Your task to perform on an android device: turn off picture-in-picture Image 0: 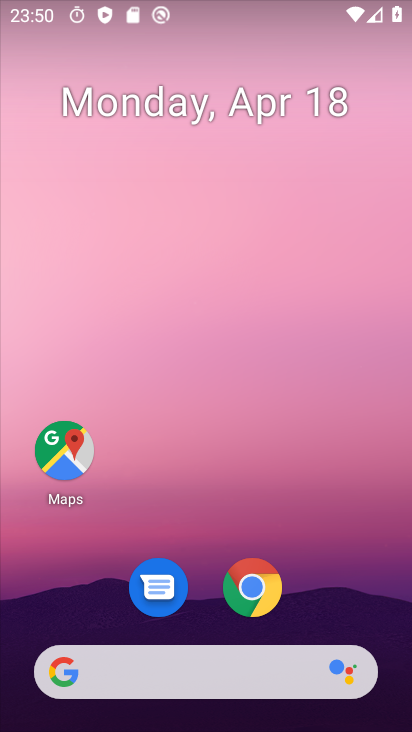
Step 0: drag from (363, 587) to (364, 114)
Your task to perform on an android device: turn off picture-in-picture Image 1: 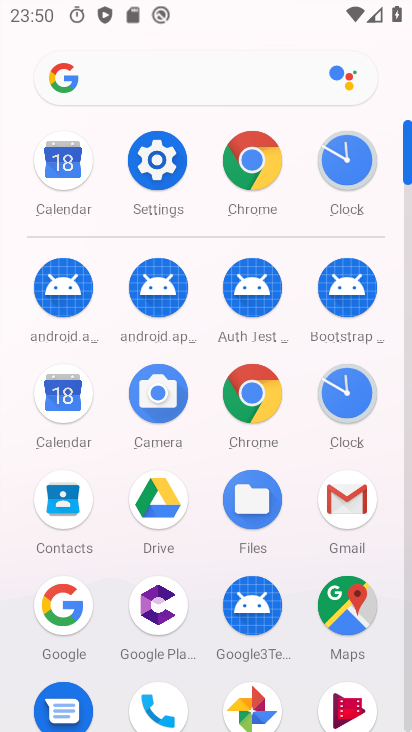
Step 1: click (168, 169)
Your task to perform on an android device: turn off picture-in-picture Image 2: 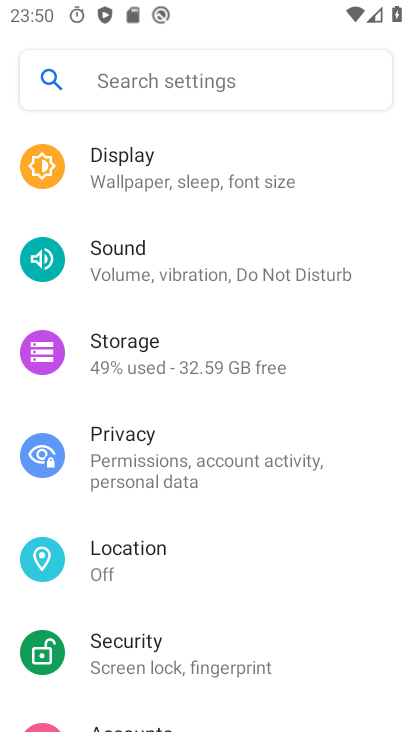
Step 2: drag from (278, 562) to (373, 210)
Your task to perform on an android device: turn off picture-in-picture Image 3: 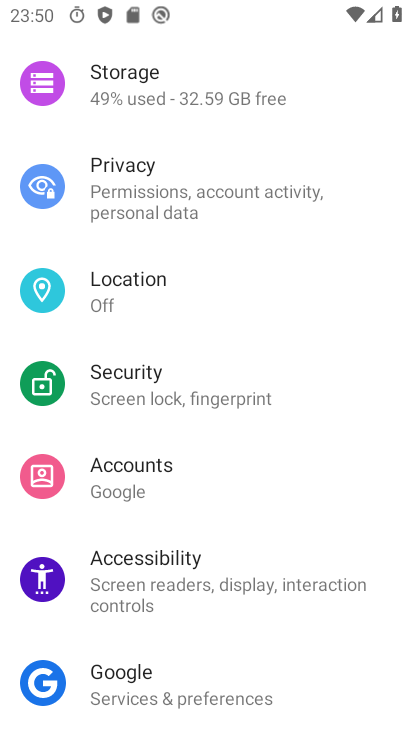
Step 3: drag from (270, 621) to (310, 275)
Your task to perform on an android device: turn off picture-in-picture Image 4: 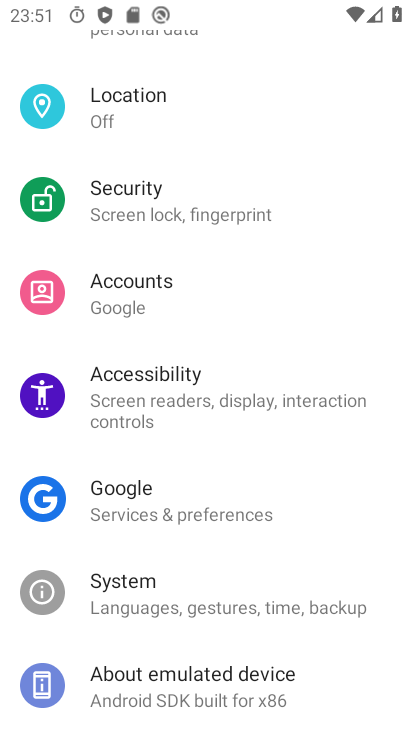
Step 4: drag from (287, 220) to (306, 509)
Your task to perform on an android device: turn off picture-in-picture Image 5: 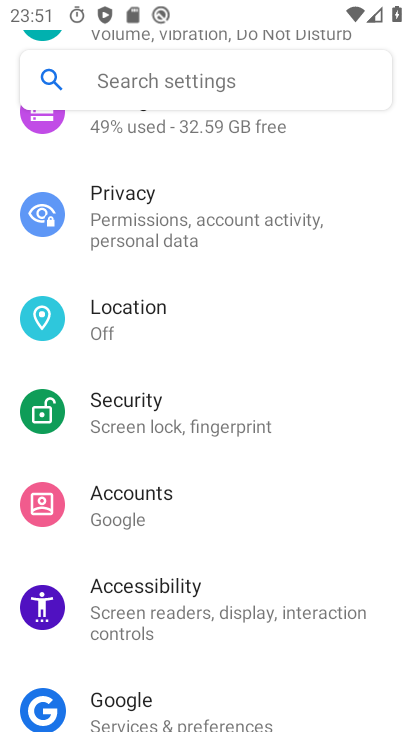
Step 5: drag from (326, 233) to (336, 512)
Your task to perform on an android device: turn off picture-in-picture Image 6: 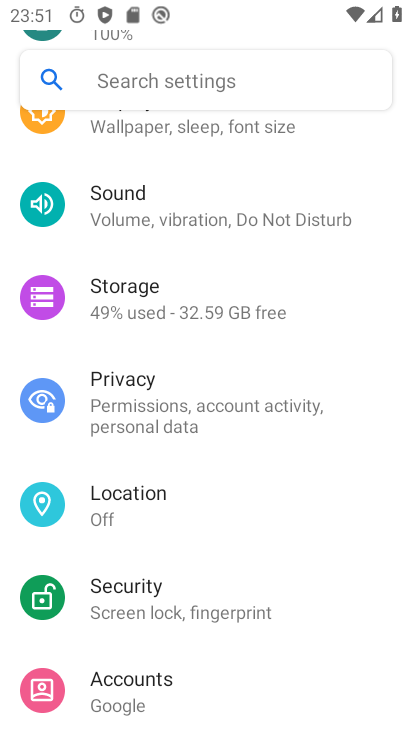
Step 6: drag from (329, 283) to (356, 513)
Your task to perform on an android device: turn off picture-in-picture Image 7: 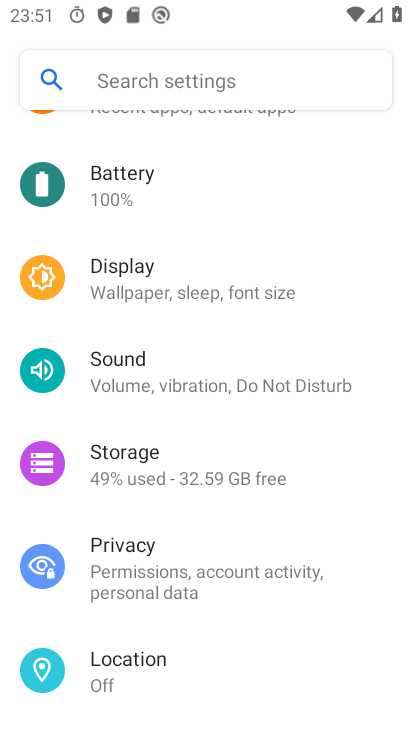
Step 7: drag from (323, 256) to (321, 488)
Your task to perform on an android device: turn off picture-in-picture Image 8: 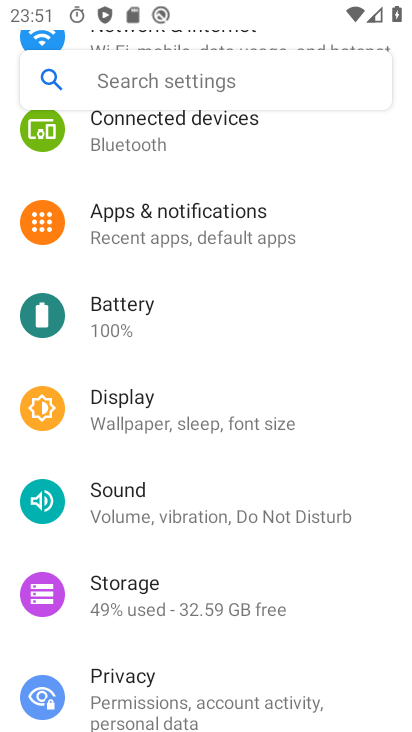
Step 8: click (247, 227)
Your task to perform on an android device: turn off picture-in-picture Image 9: 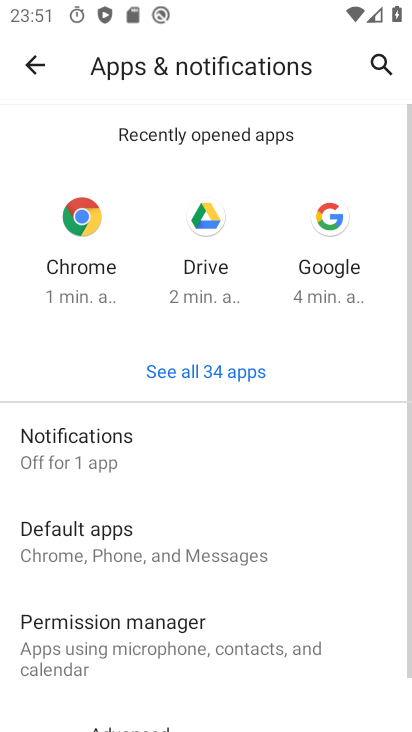
Step 9: drag from (330, 601) to (339, 214)
Your task to perform on an android device: turn off picture-in-picture Image 10: 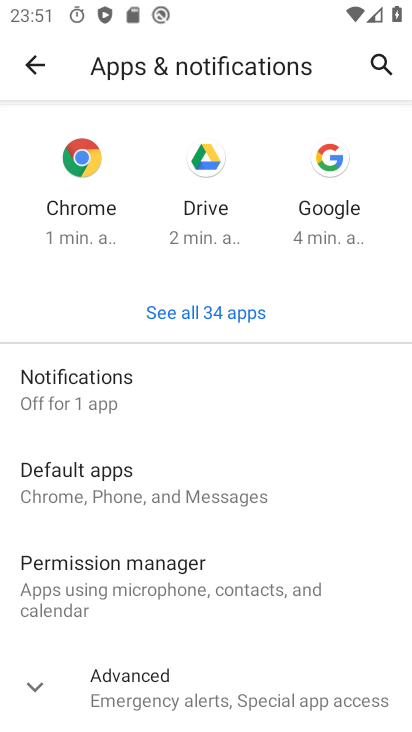
Step 10: click (231, 683)
Your task to perform on an android device: turn off picture-in-picture Image 11: 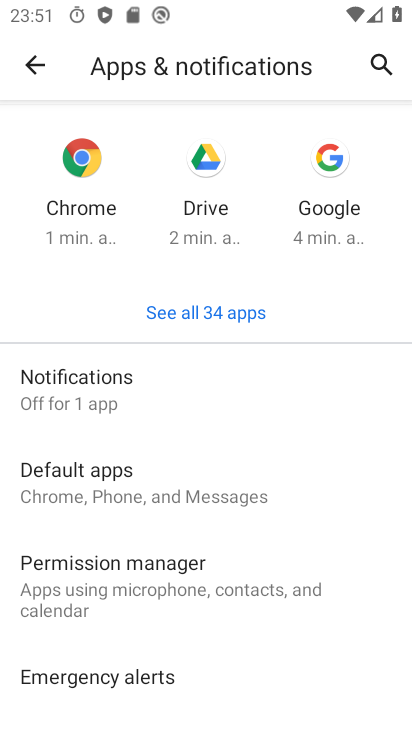
Step 11: drag from (308, 651) to (328, 433)
Your task to perform on an android device: turn off picture-in-picture Image 12: 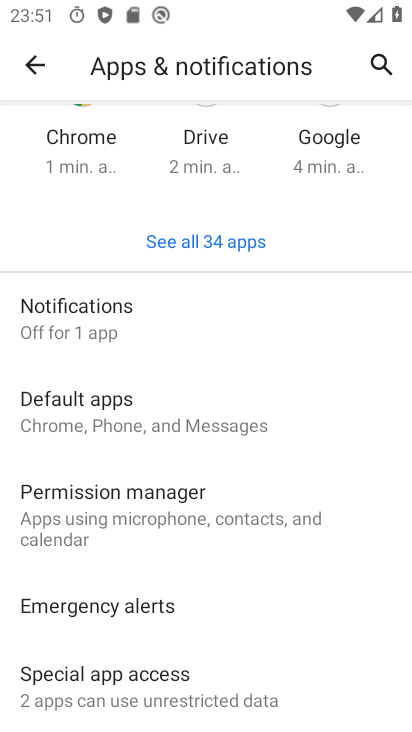
Step 12: drag from (247, 654) to (309, 406)
Your task to perform on an android device: turn off picture-in-picture Image 13: 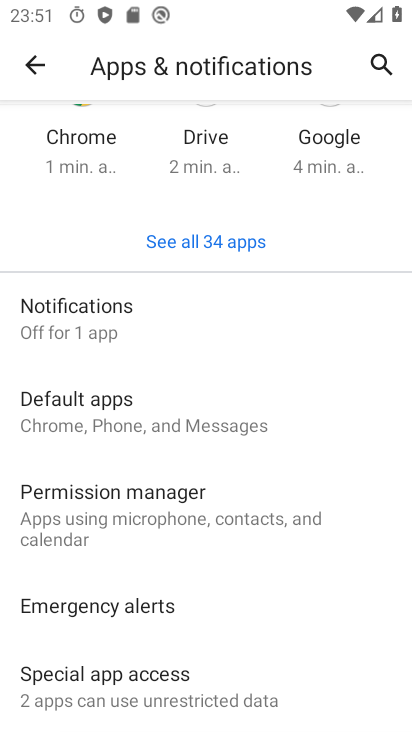
Step 13: click (204, 680)
Your task to perform on an android device: turn off picture-in-picture Image 14: 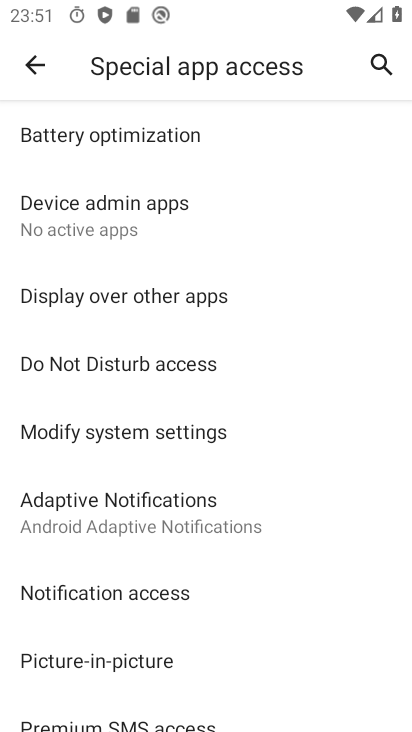
Step 14: click (162, 656)
Your task to perform on an android device: turn off picture-in-picture Image 15: 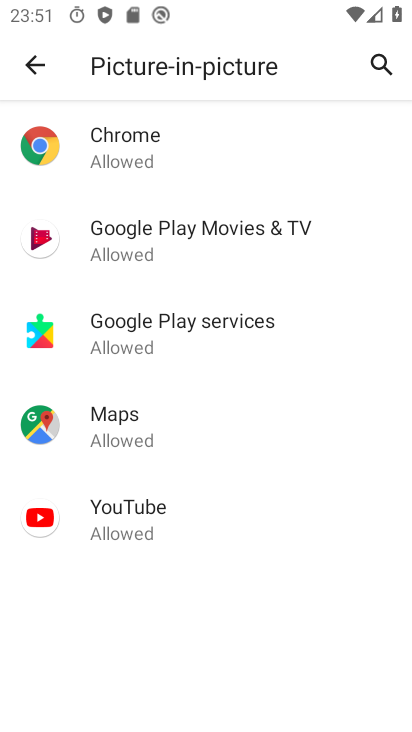
Step 15: click (190, 164)
Your task to perform on an android device: turn off picture-in-picture Image 16: 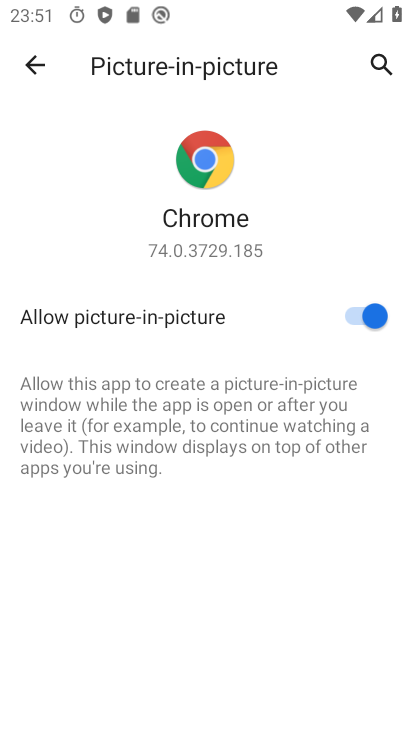
Step 16: click (351, 312)
Your task to perform on an android device: turn off picture-in-picture Image 17: 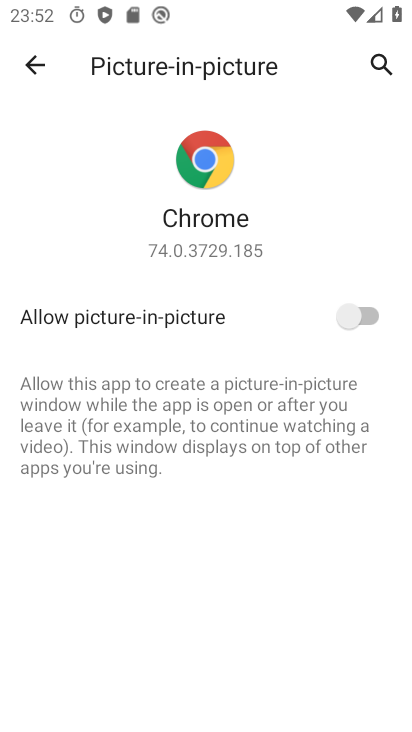
Step 17: task complete